Your task to perform on an android device: Is it going to rain tomorrow? Image 0: 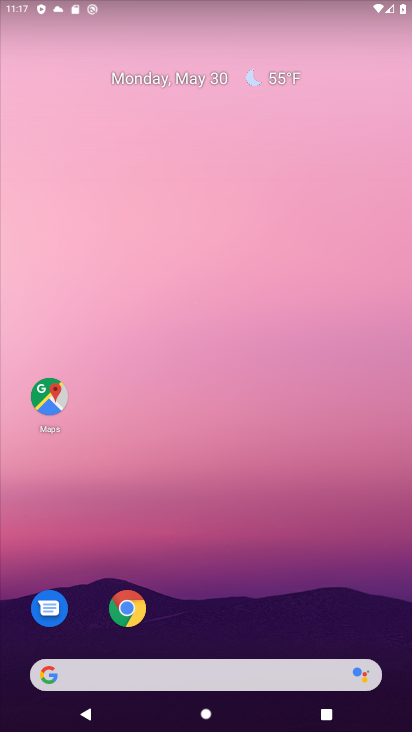
Step 0: click (269, 82)
Your task to perform on an android device: Is it going to rain tomorrow? Image 1: 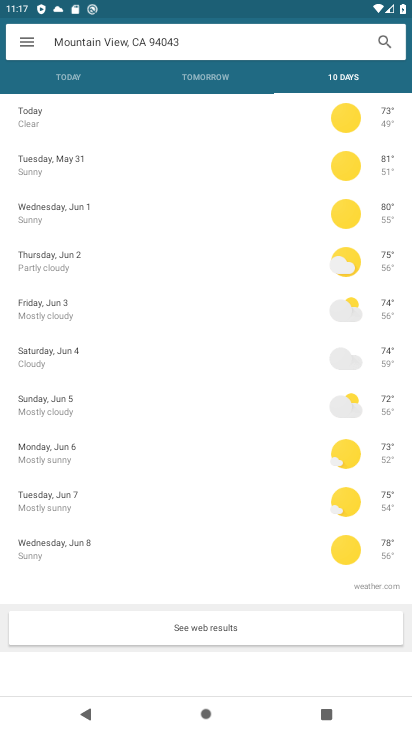
Step 1: click (180, 88)
Your task to perform on an android device: Is it going to rain tomorrow? Image 2: 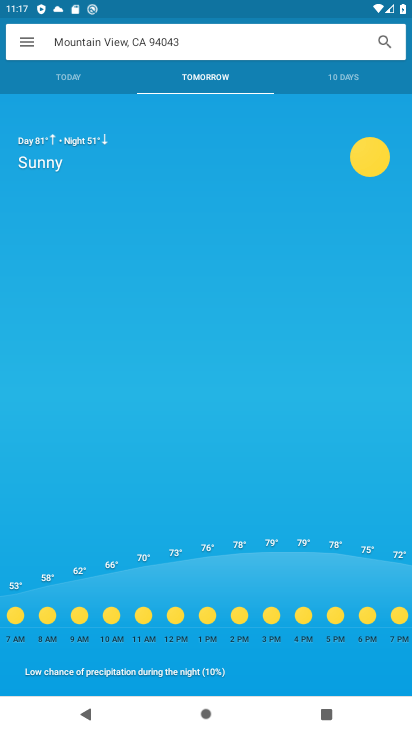
Step 2: task complete